Your task to perform on an android device: What's the price of the Vizio TV? Image 0: 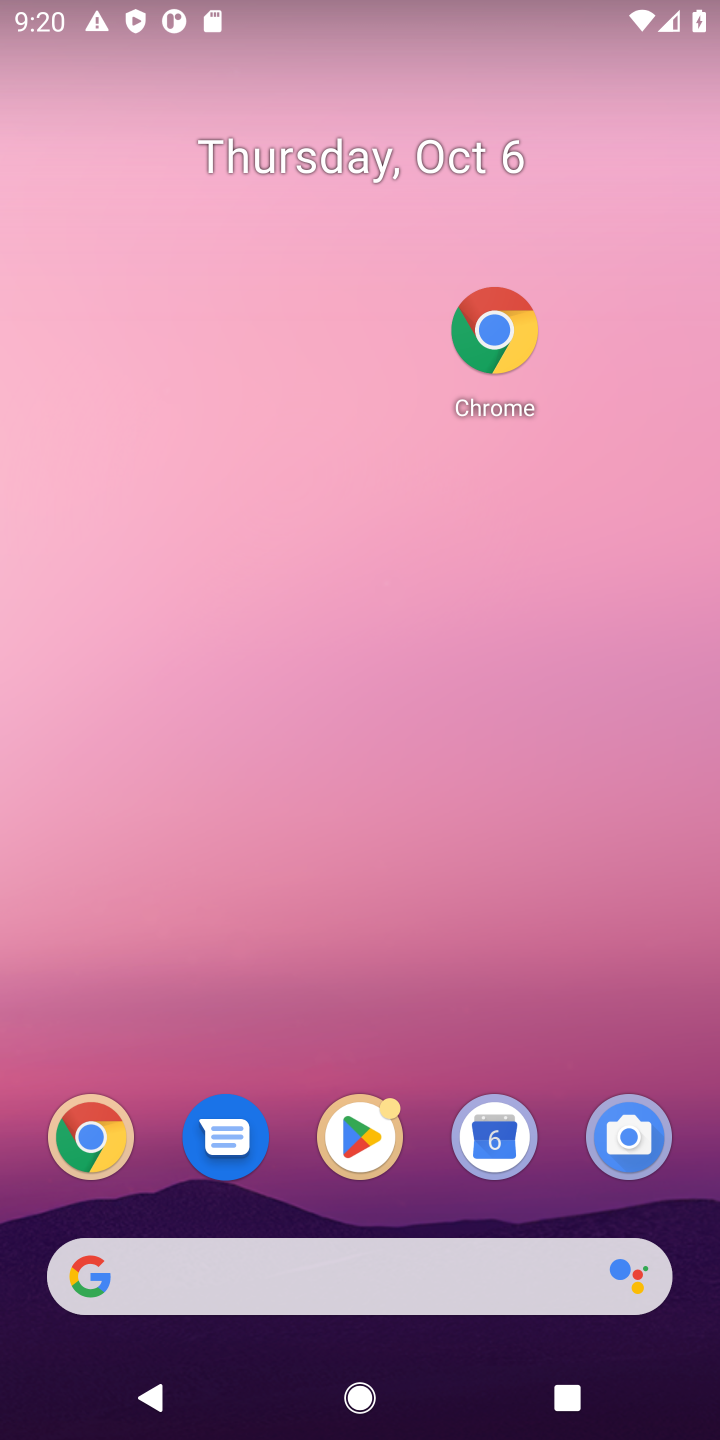
Step 0: click (77, 1151)
Your task to perform on an android device: What's the price of the Vizio TV? Image 1: 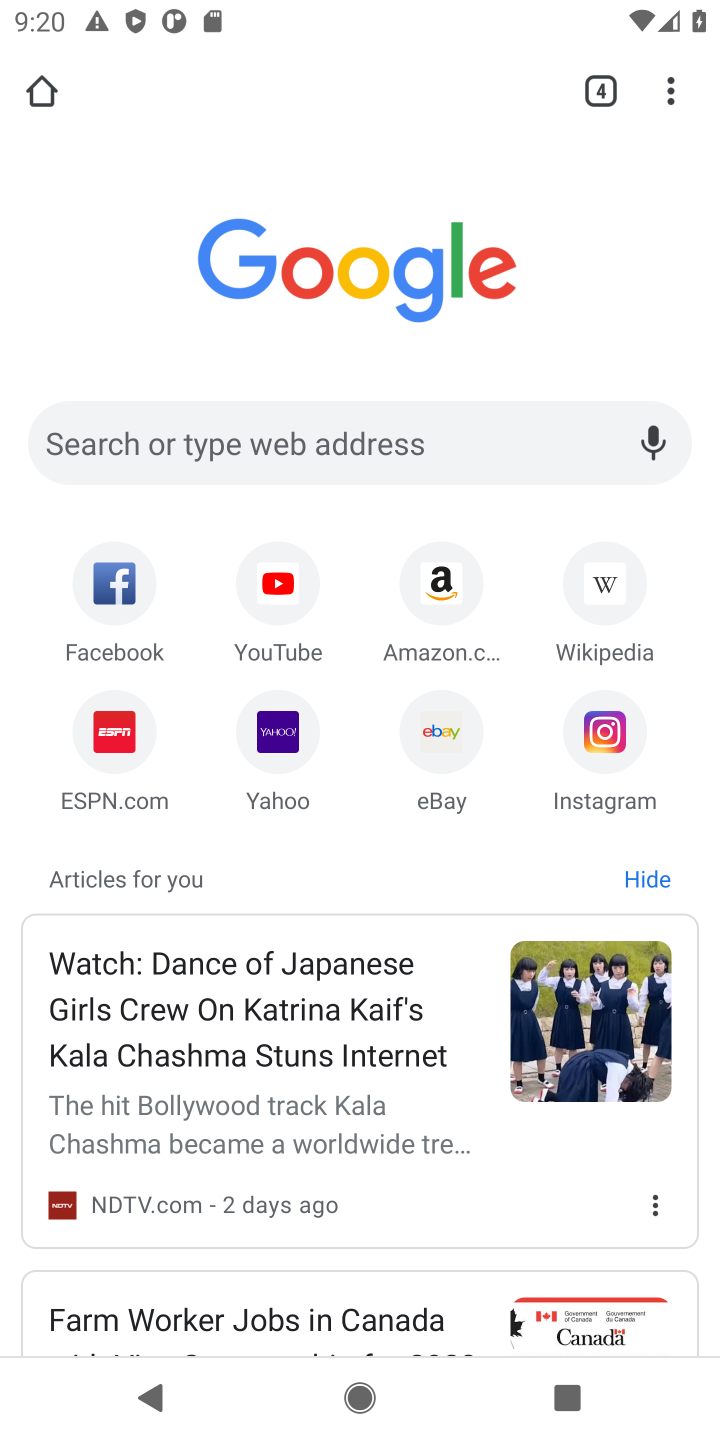
Step 1: click (321, 432)
Your task to perform on an android device: What's the price of the Vizio TV? Image 2: 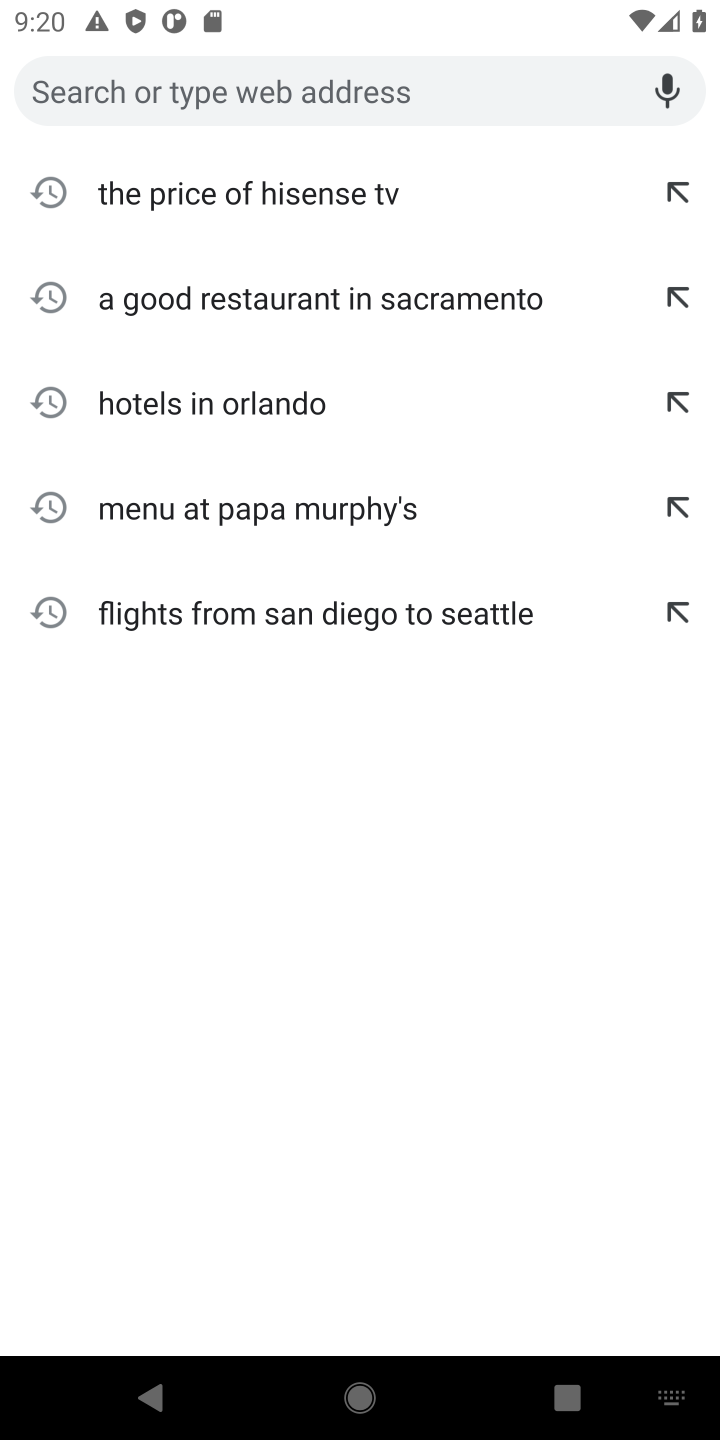
Step 2: type "price of the Vizio TV"
Your task to perform on an android device: What's the price of the Vizio TV? Image 3: 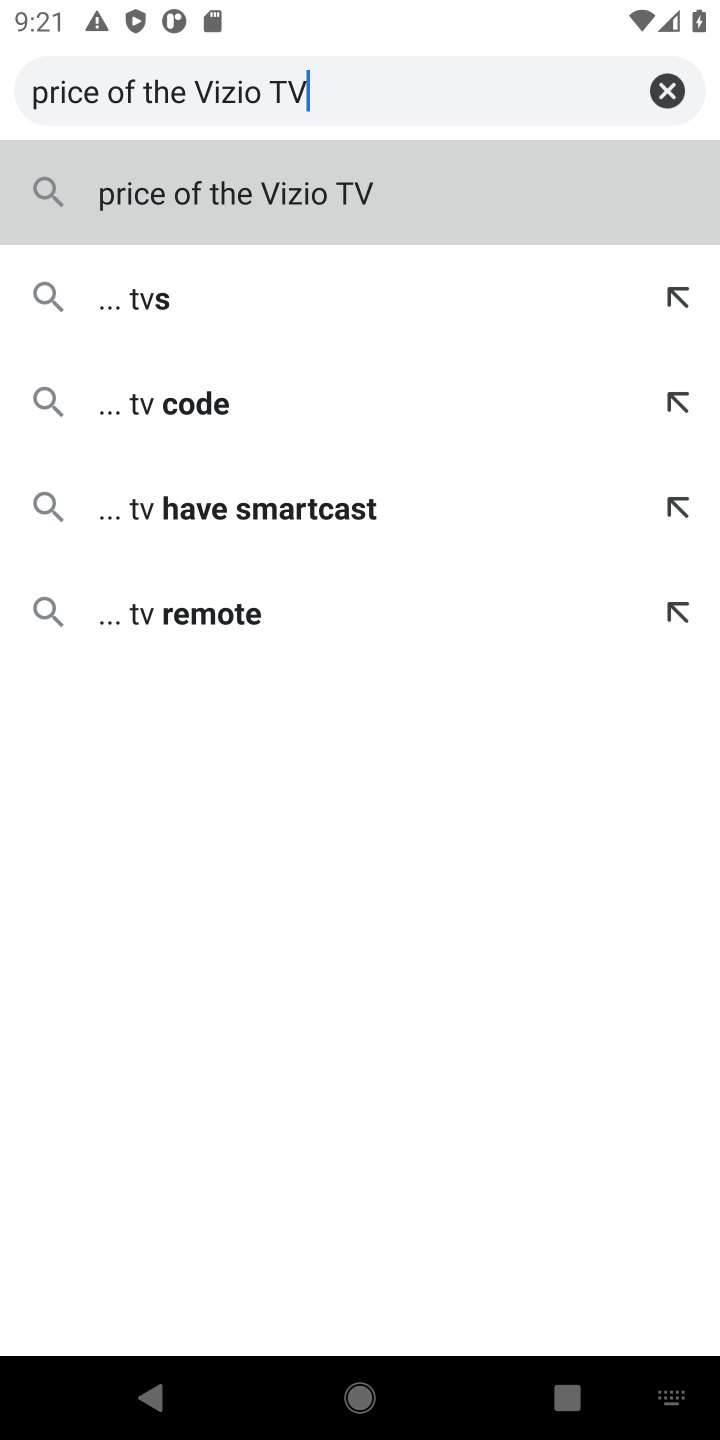
Step 3: click (318, 202)
Your task to perform on an android device: What's the price of the Vizio TV? Image 4: 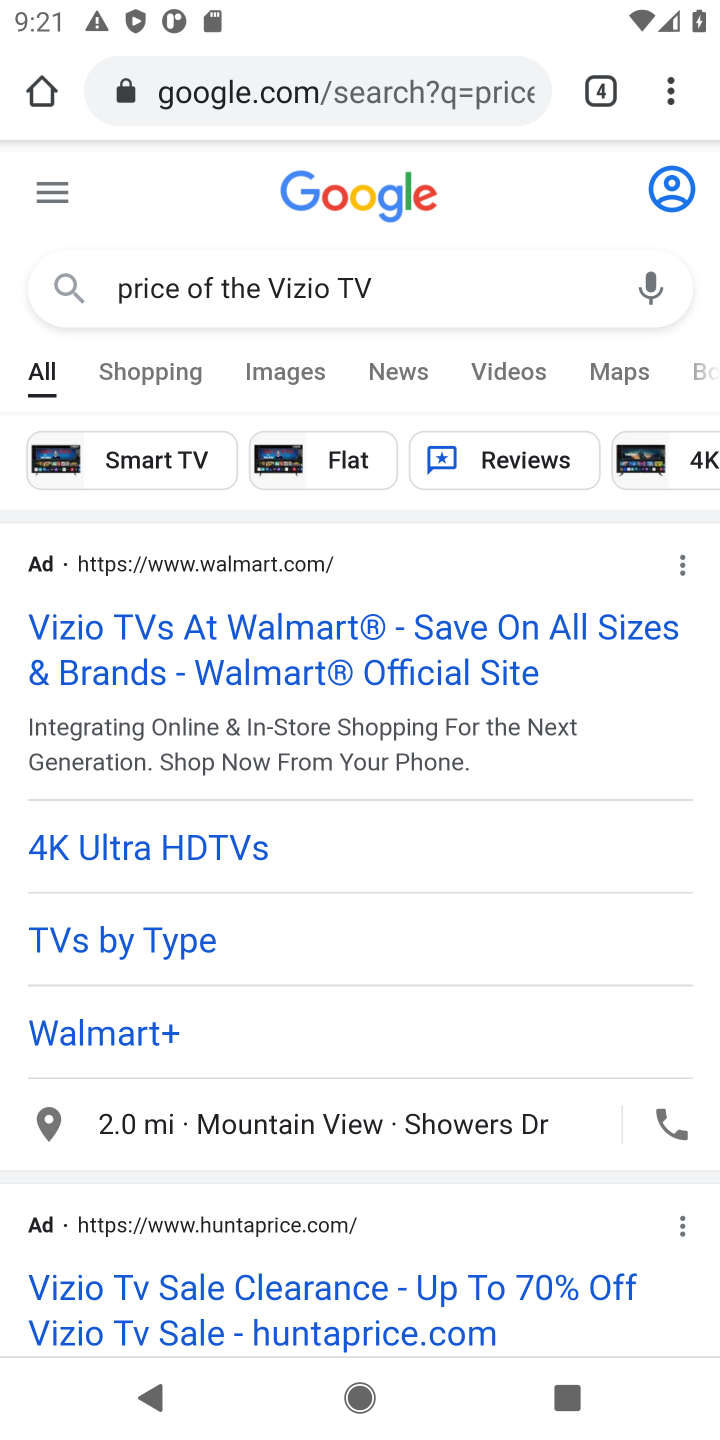
Step 4: click (201, 637)
Your task to perform on an android device: What's the price of the Vizio TV? Image 5: 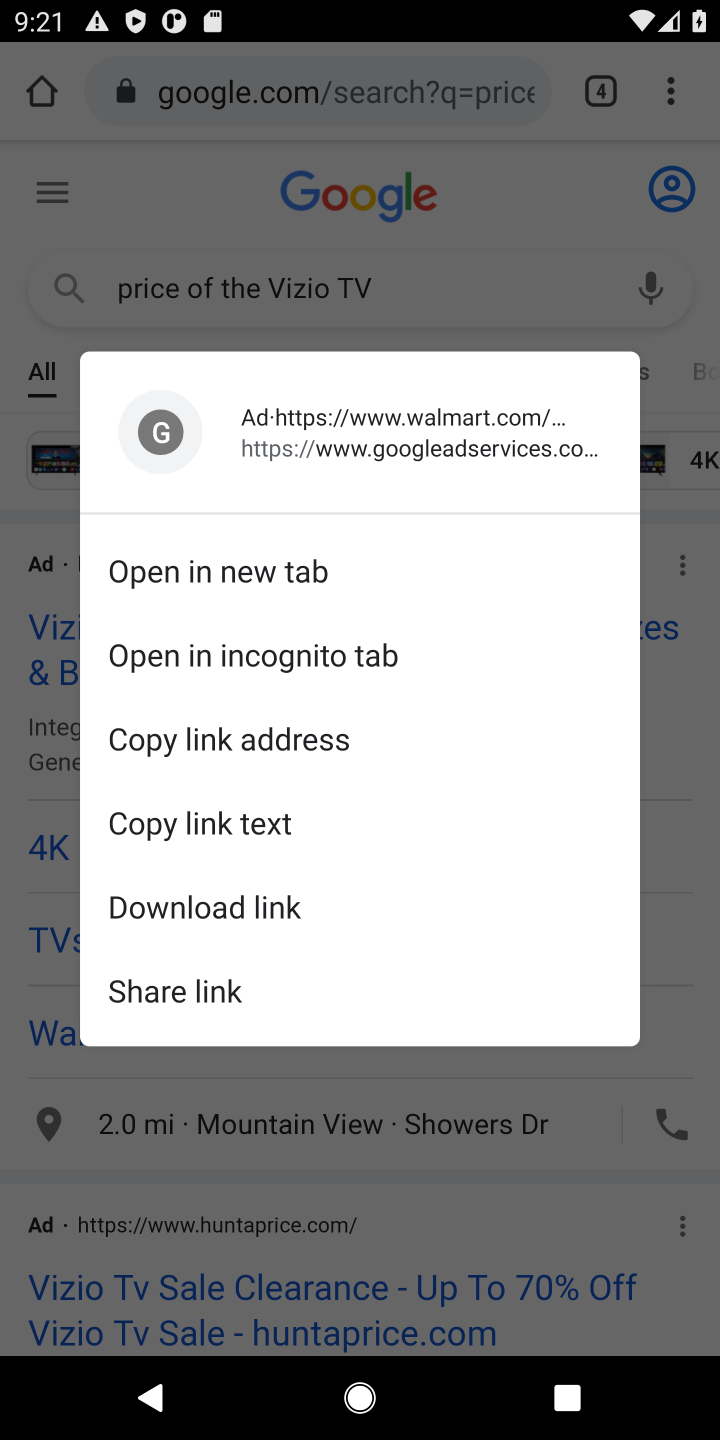
Step 5: click (48, 640)
Your task to perform on an android device: What's the price of the Vizio TV? Image 6: 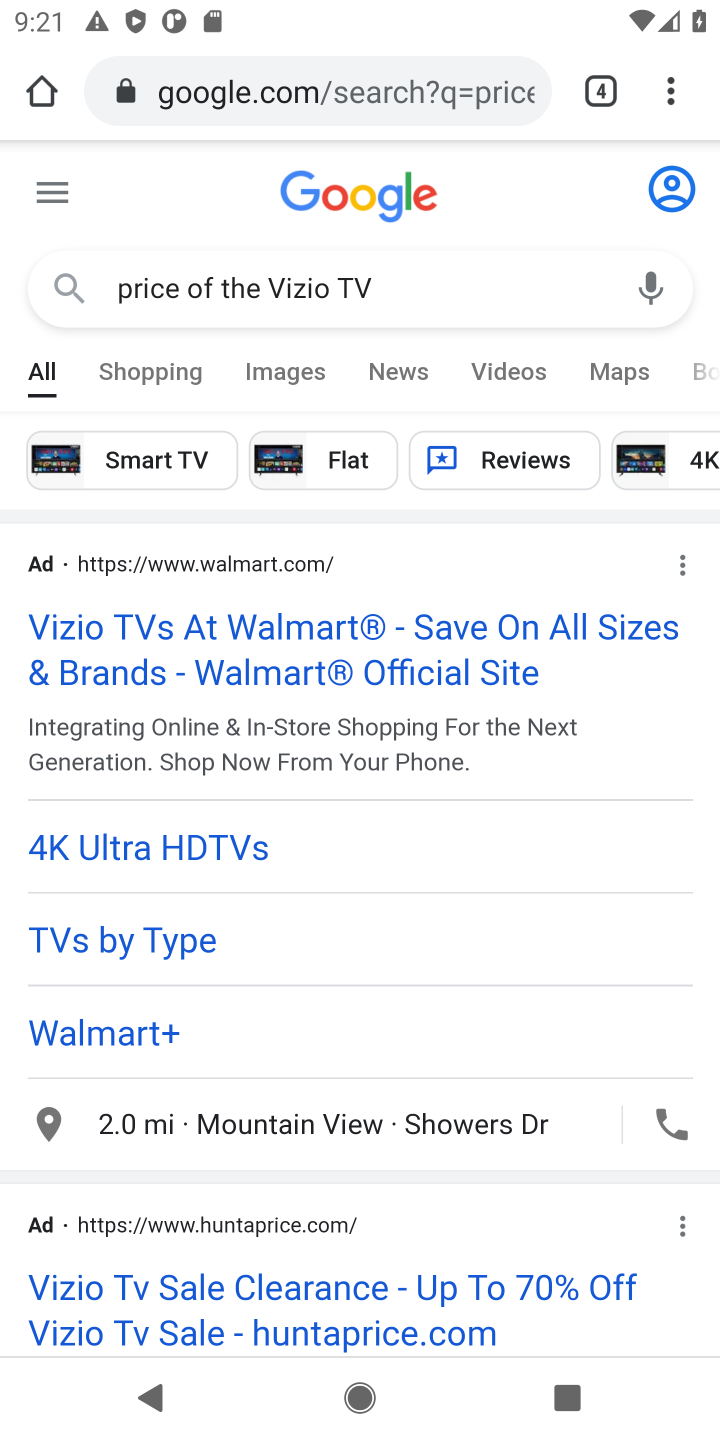
Step 6: click (221, 664)
Your task to perform on an android device: What's the price of the Vizio TV? Image 7: 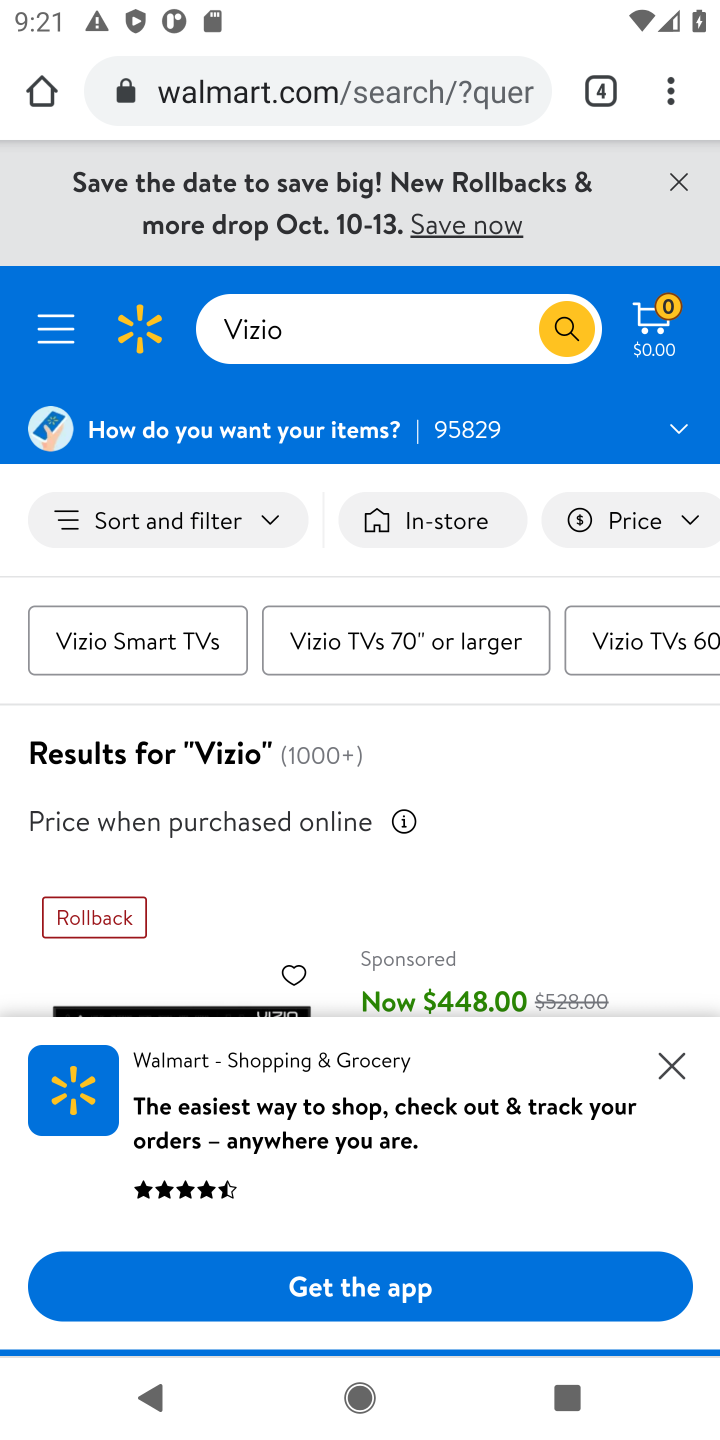
Step 7: click (665, 1064)
Your task to perform on an android device: What's the price of the Vizio TV? Image 8: 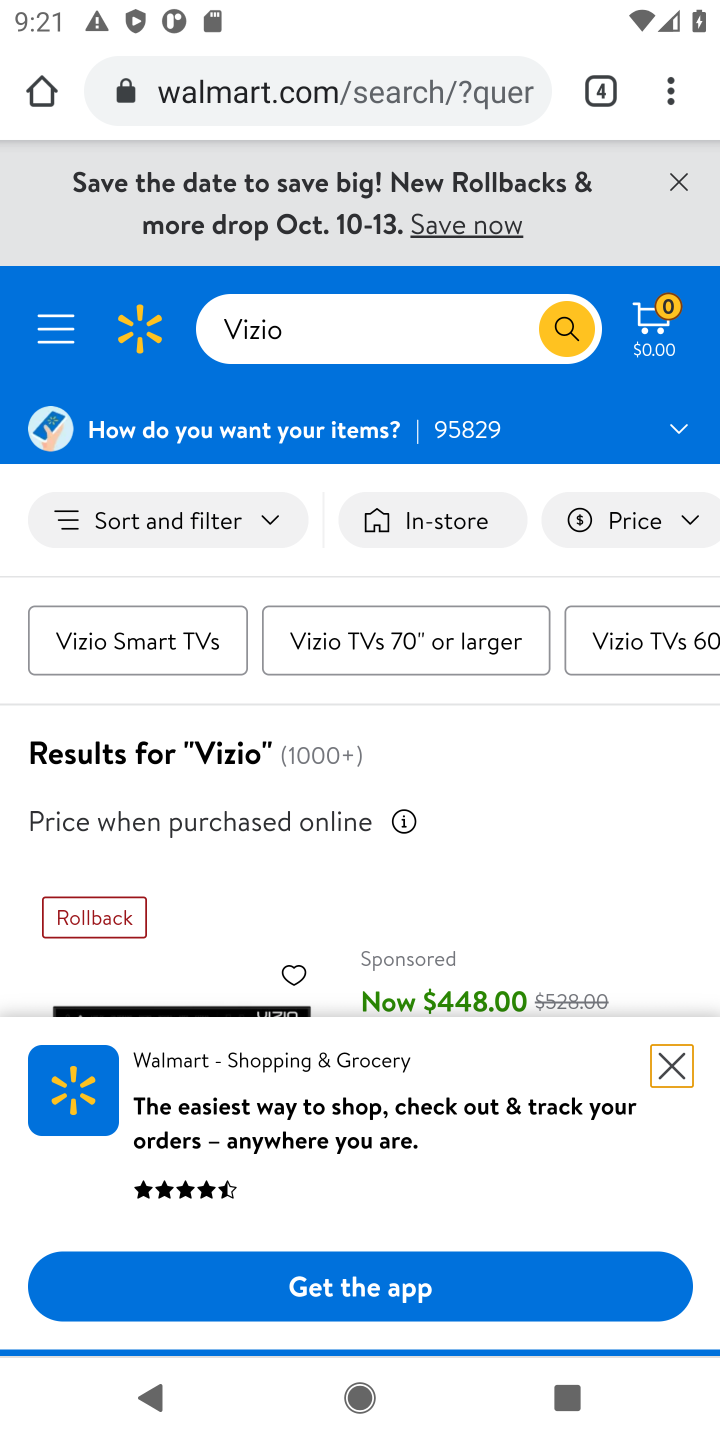
Step 8: click (672, 1065)
Your task to perform on an android device: What's the price of the Vizio TV? Image 9: 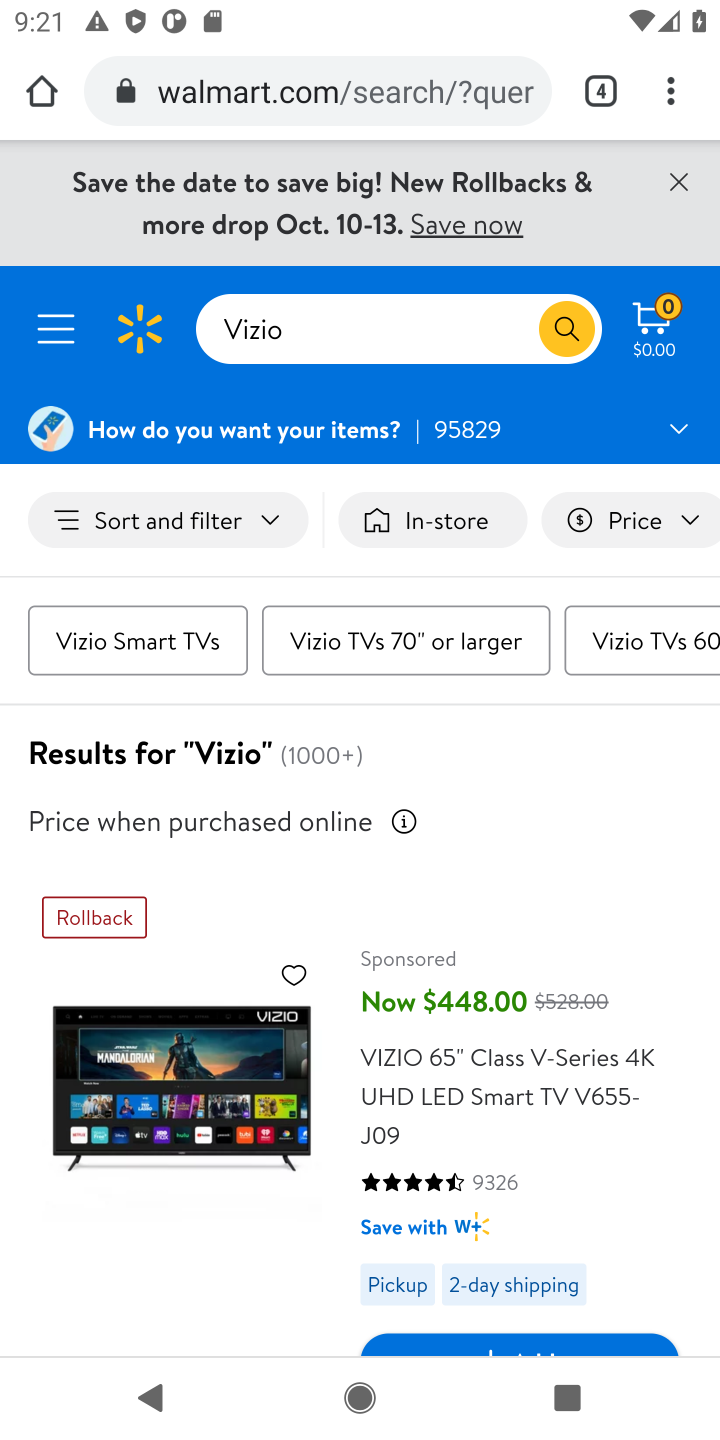
Step 9: task complete